Your task to perform on an android device: Open Google Maps and go to "Timeline" Image 0: 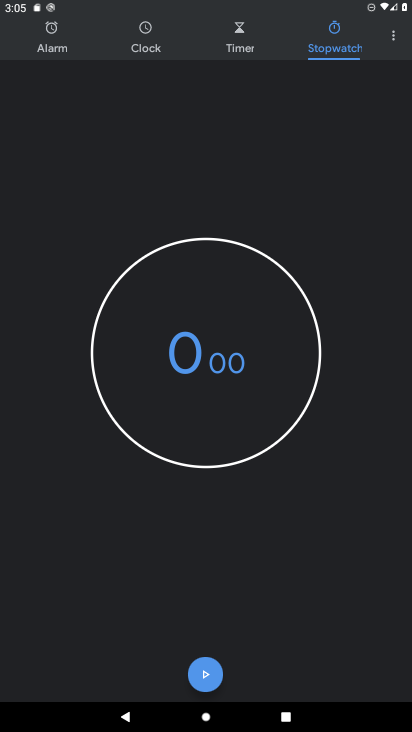
Step 0: press home button
Your task to perform on an android device: Open Google Maps and go to "Timeline" Image 1: 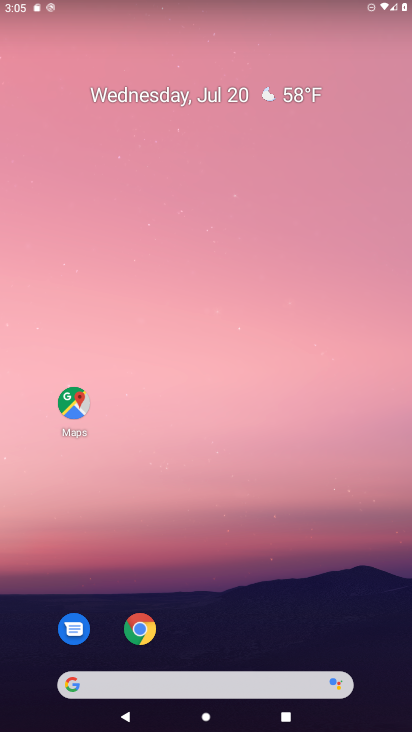
Step 1: drag from (237, 621) to (289, 83)
Your task to perform on an android device: Open Google Maps and go to "Timeline" Image 2: 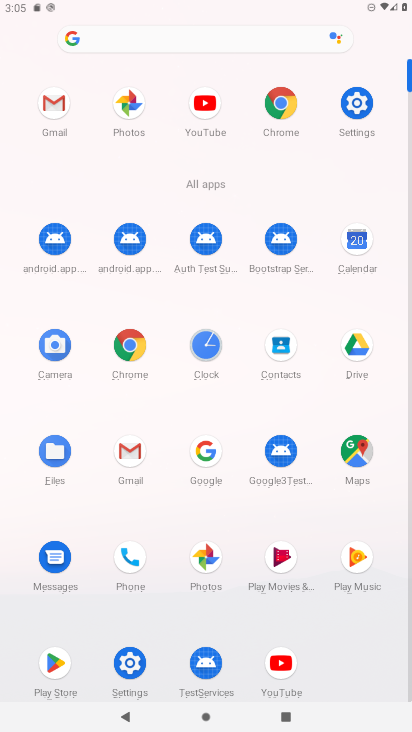
Step 2: click (346, 448)
Your task to perform on an android device: Open Google Maps and go to "Timeline" Image 3: 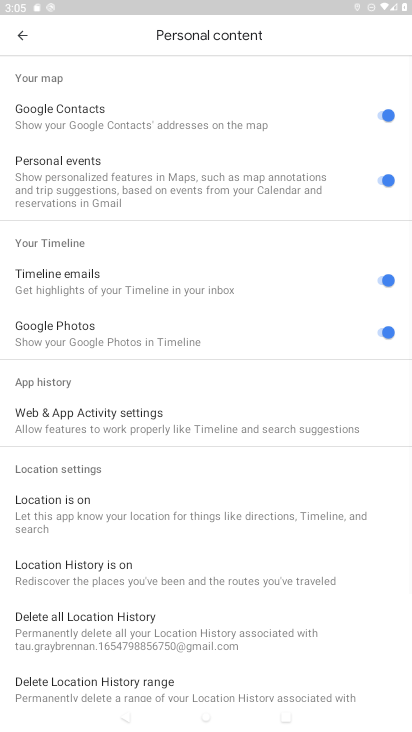
Step 3: click (21, 34)
Your task to perform on an android device: Open Google Maps and go to "Timeline" Image 4: 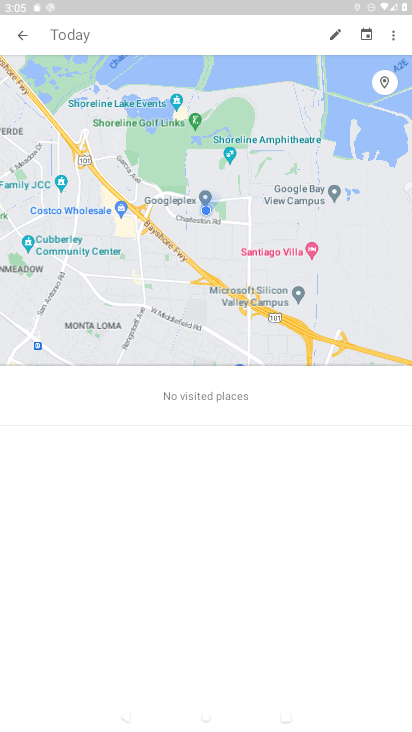
Step 4: click (21, 34)
Your task to perform on an android device: Open Google Maps and go to "Timeline" Image 5: 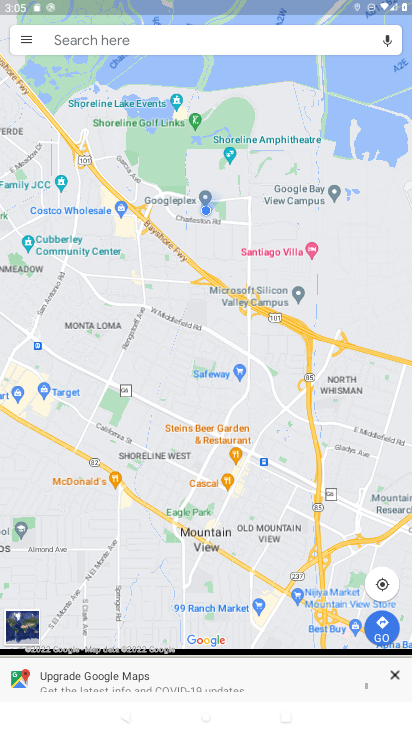
Step 5: click (21, 34)
Your task to perform on an android device: Open Google Maps and go to "Timeline" Image 6: 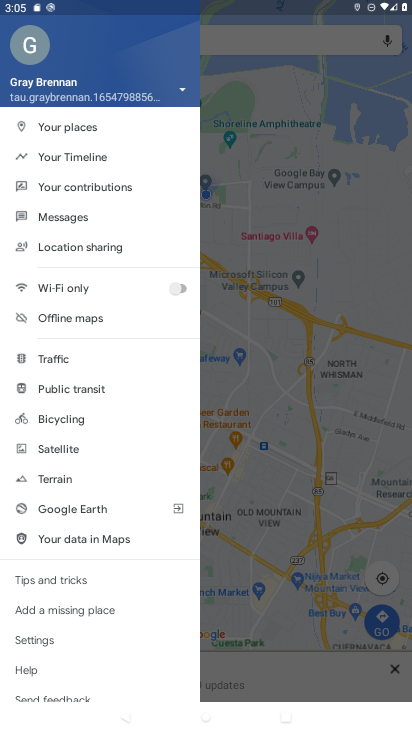
Step 6: click (82, 160)
Your task to perform on an android device: Open Google Maps and go to "Timeline" Image 7: 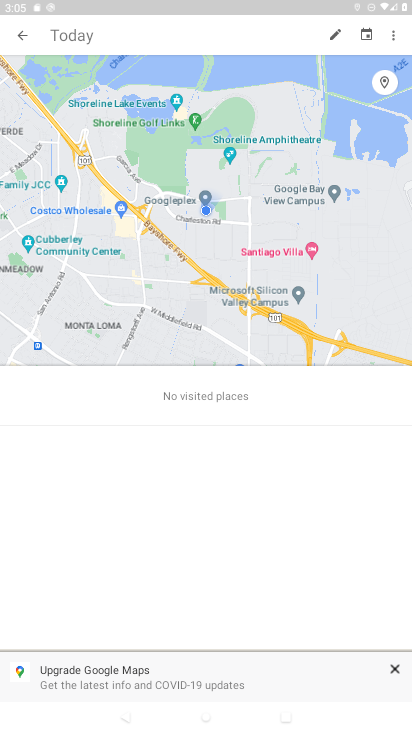
Step 7: task complete